Your task to perform on an android device: Open the calendar app, open the side menu, and click the "Day" option Image 0: 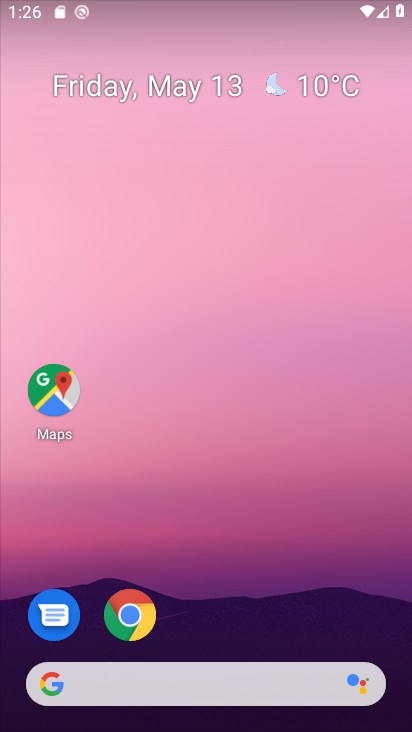
Step 0: drag from (207, 608) to (68, 146)
Your task to perform on an android device: Open the calendar app, open the side menu, and click the "Day" option Image 1: 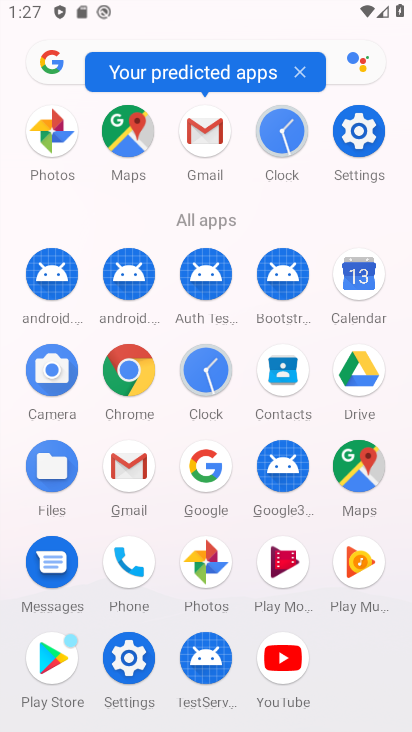
Step 1: click (359, 281)
Your task to perform on an android device: Open the calendar app, open the side menu, and click the "Day" option Image 2: 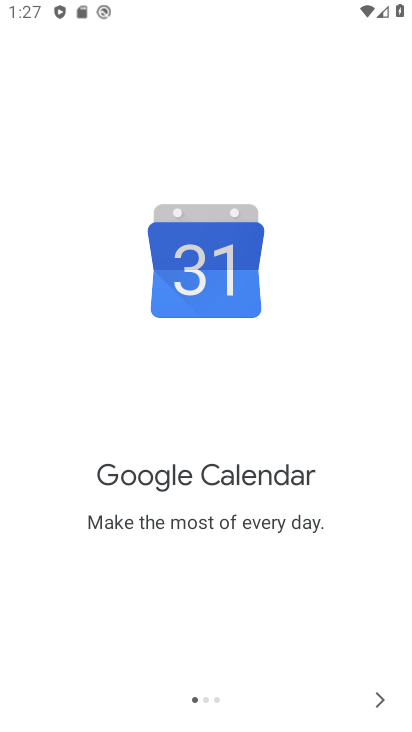
Step 2: click (373, 693)
Your task to perform on an android device: Open the calendar app, open the side menu, and click the "Day" option Image 3: 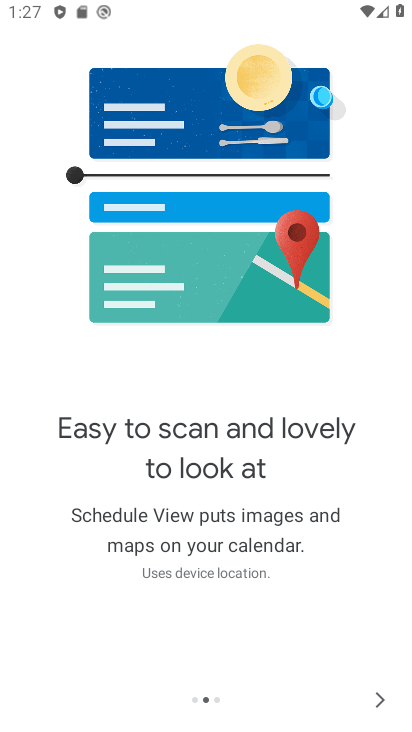
Step 3: click (383, 701)
Your task to perform on an android device: Open the calendar app, open the side menu, and click the "Day" option Image 4: 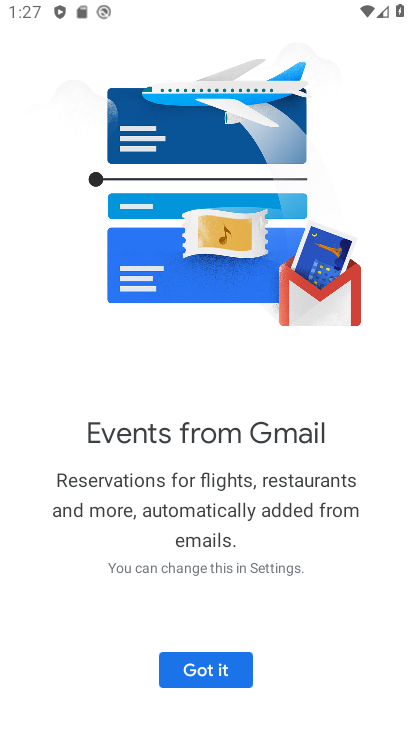
Step 4: click (211, 679)
Your task to perform on an android device: Open the calendar app, open the side menu, and click the "Day" option Image 5: 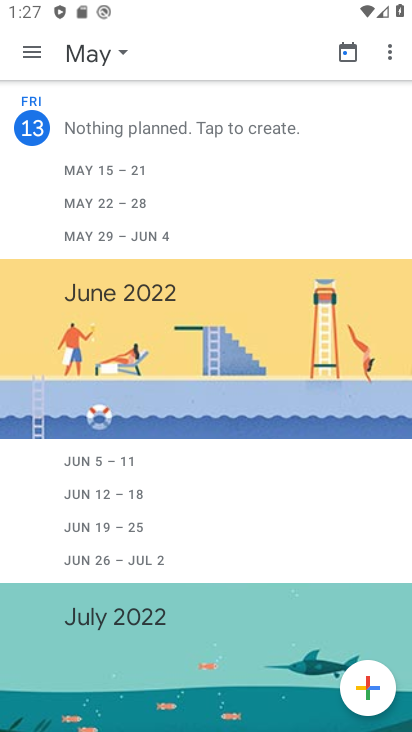
Step 5: click (29, 56)
Your task to perform on an android device: Open the calendar app, open the side menu, and click the "Day" option Image 6: 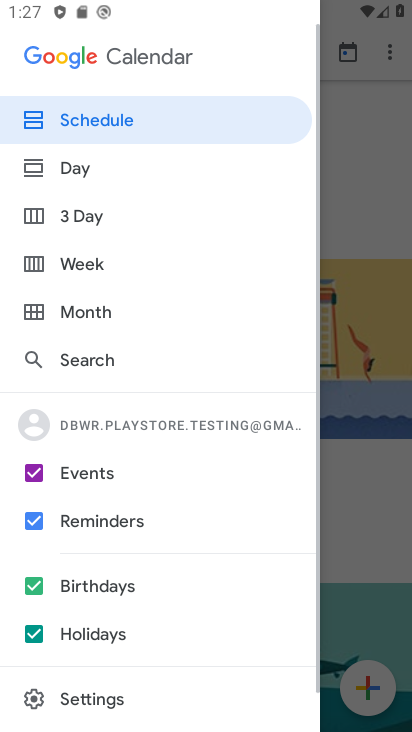
Step 6: click (55, 175)
Your task to perform on an android device: Open the calendar app, open the side menu, and click the "Day" option Image 7: 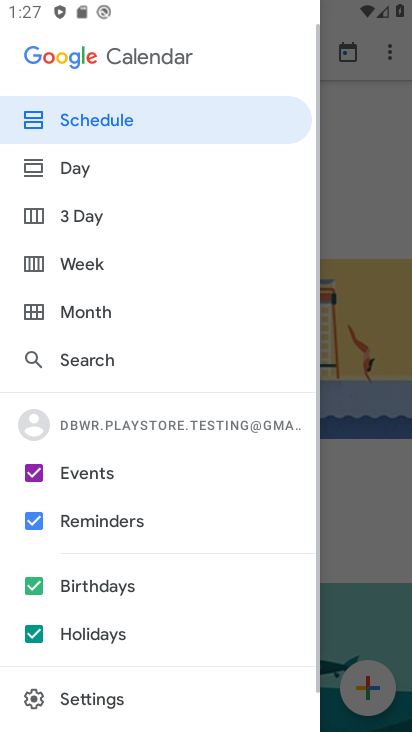
Step 7: click (55, 175)
Your task to perform on an android device: Open the calendar app, open the side menu, and click the "Day" option Image 8: 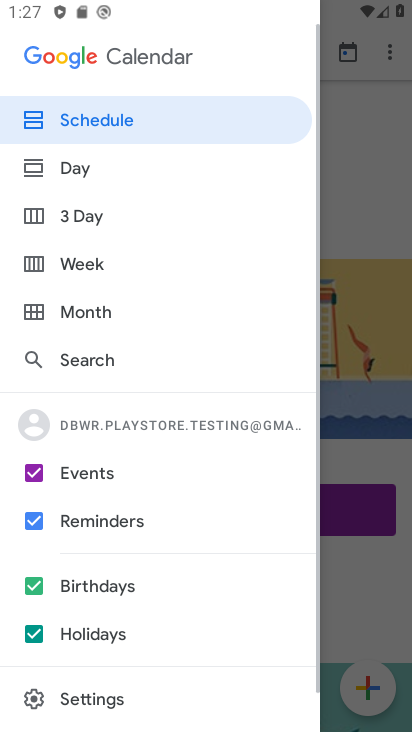
Step 8: click (78, 166)
Your task to perform on an android device: Open the calendar app, open the side menu, and click the "Day" option Image 9: 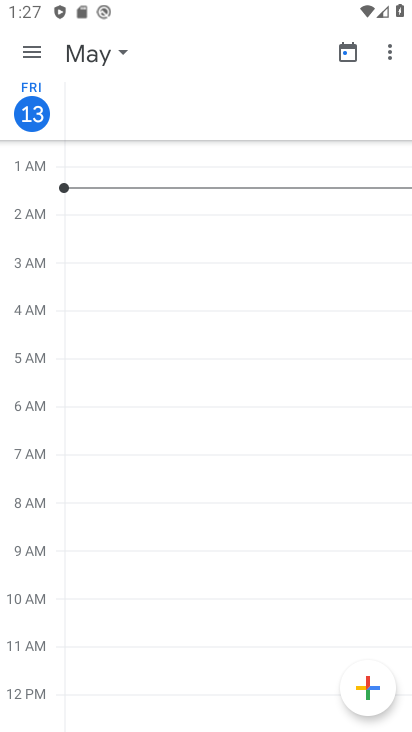
Step 9: task complete